Your task to perform on an android device: Open Google Maps Image 0: 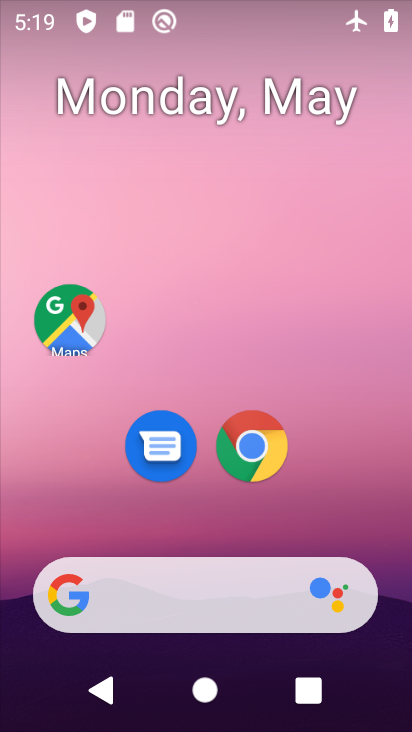
Step 0: click (67, 305)
Your task to perform on an android device: Open Google Maps Image 1: 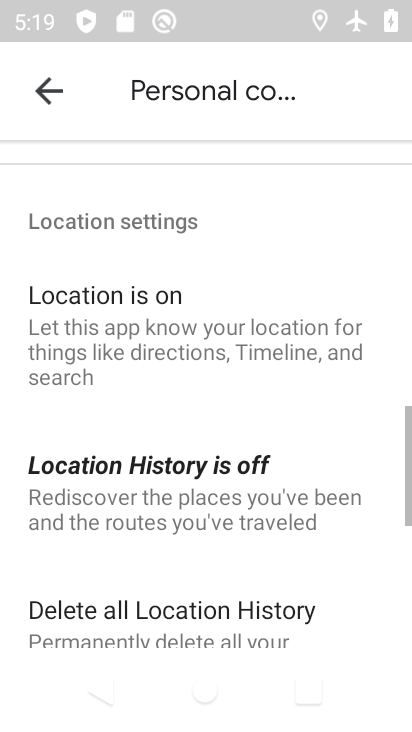
Step 1: click (49, 100)
Your task to perform on an android device: Open Google Maps Image 2: 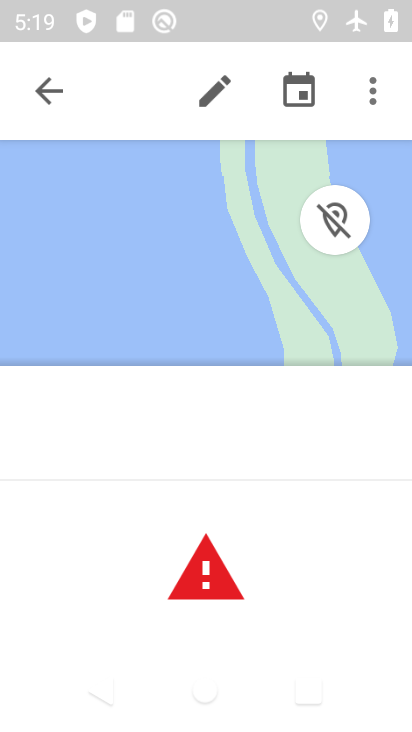
Step 2: click (39, 88)
Your task to perform on an android device: Open Google Maps Image 3: 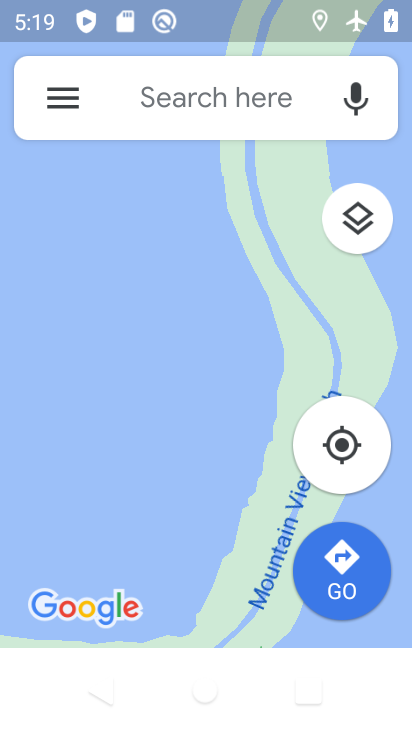
Step 3: task complete